Your task to perform on an android device: turn on javascript in the chrome app Image 0: 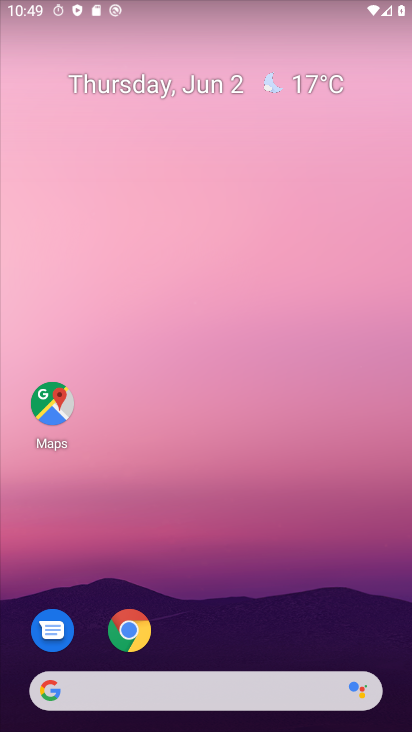
Step 0: click (133, 630)
Your task to perform on an android device: turn on javascript in the chrome app Image 1: 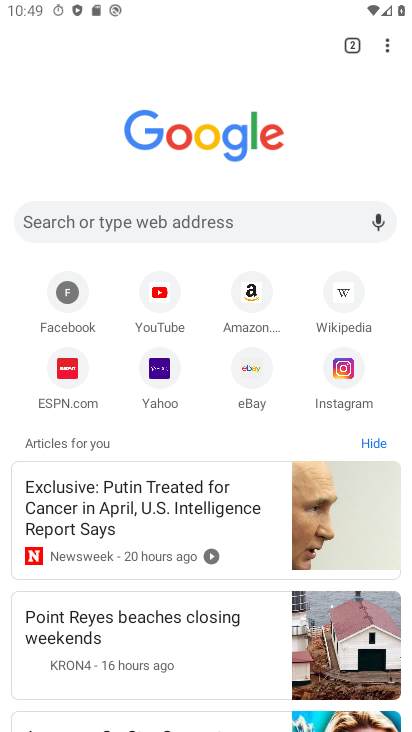
Step 1: click (389, 41)
Your task to perform on an android device: turn on javascript in the chrome app Image 2: 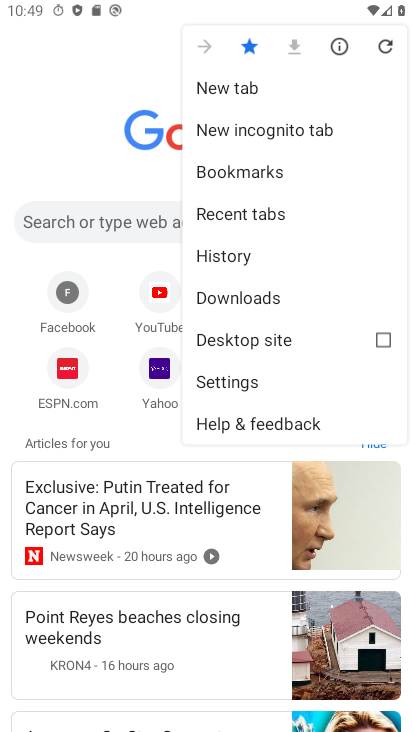
Step 2: click (236, 378)
Your task to perform on an android device: turn on javascript in the chrome app Image 3: 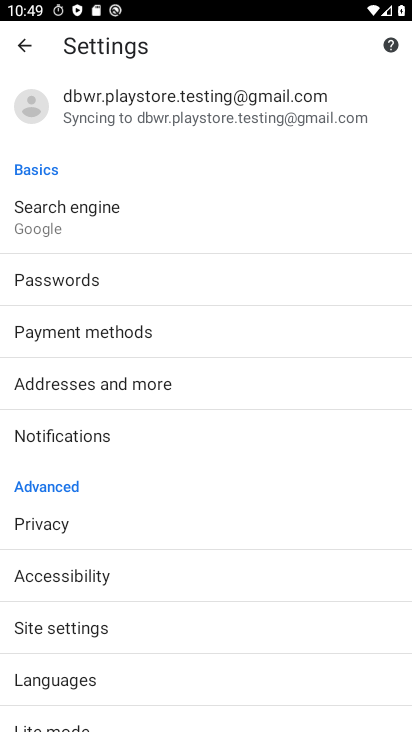
Step 3: drag from (102, 549) to (114, 457)
Your task to perform on an android device: turn on javascript in the chrome app Image 4: 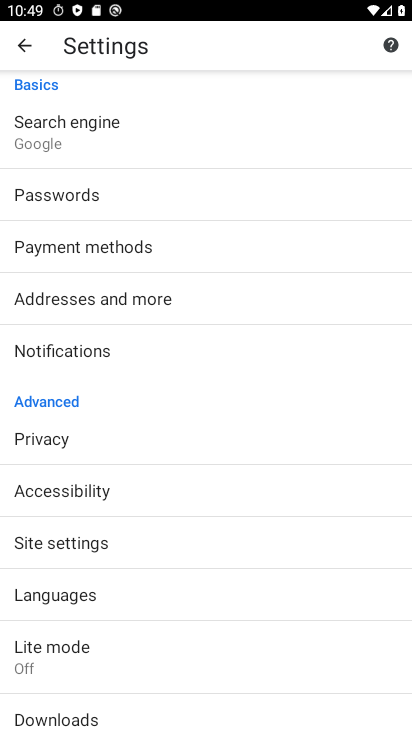
Step 4: click (76, 540)
Your task to perform on an android device: turn on javascript in the chrome app Image 5: 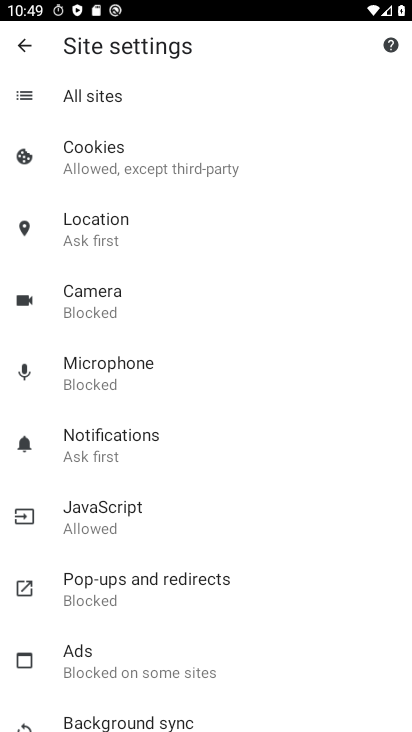
Step 5: click (116, 509)
Your task to perform on an android device: turn on javascript in the chrome app Image 6: 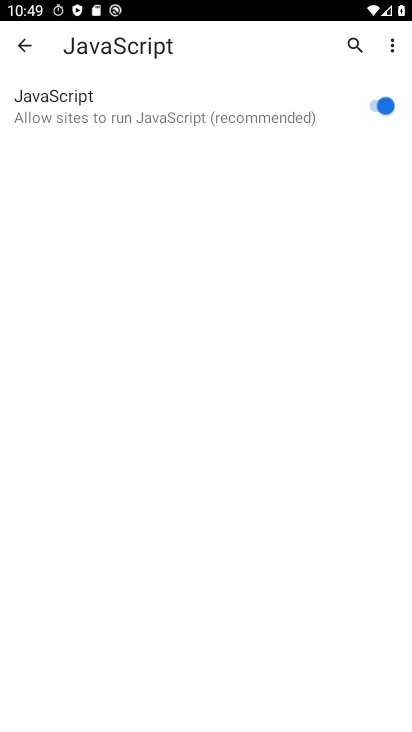
Step 6: task complete